Your task to perform on an android device: set the stopwatch Image 0: 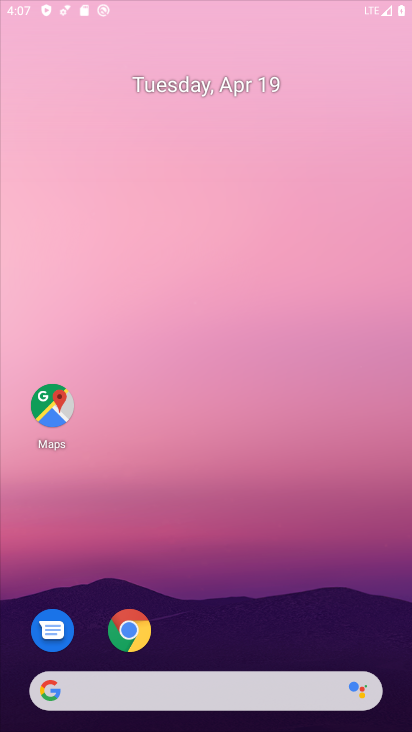
Step 0: click (205, 161)
Your task to perform on an android device: set the stopwatch Image 1: 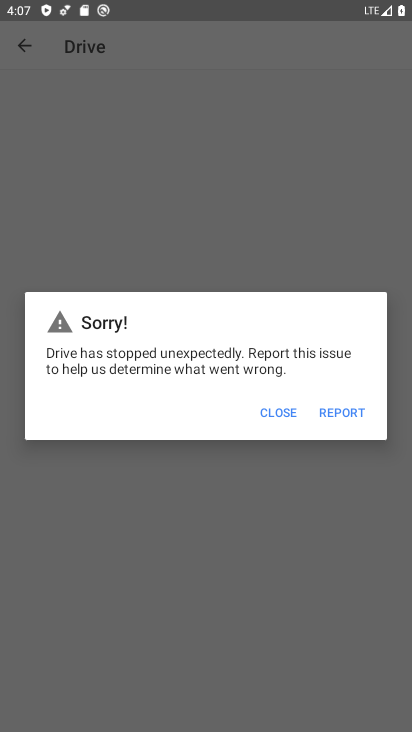
Step 1: press home button
Your task to perform on an android device: set the stopwatch Image 2: 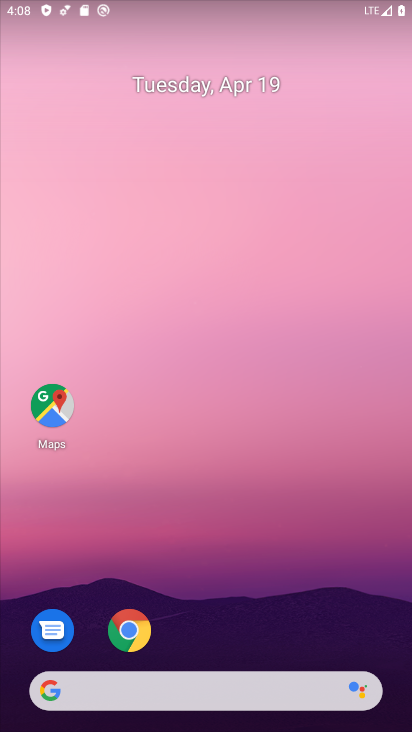
Step 2: drag from (207, 630) to (208, 225)
Your task to perform on an android device: set the stopwatch Image 3: 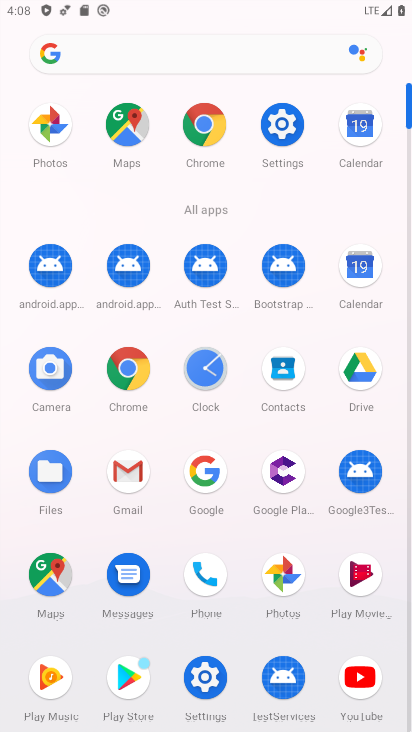
Step 3: click (213, 380)
Your task to perform on an android device: set the stopwatch Image 4: 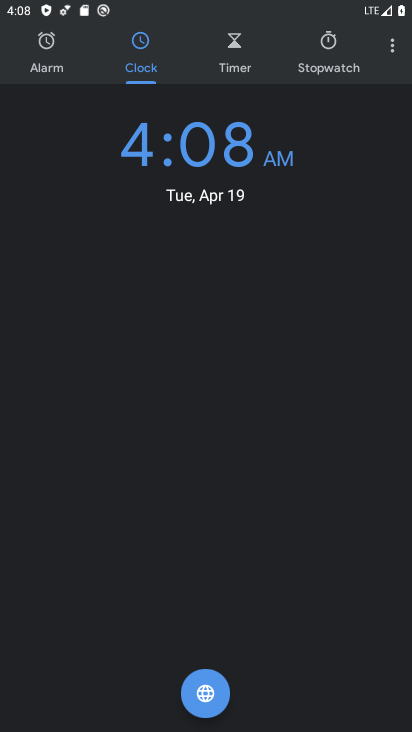
Step 4: click (325, 53)
Your task to perform on an android device: set the stopwatch Image 5: 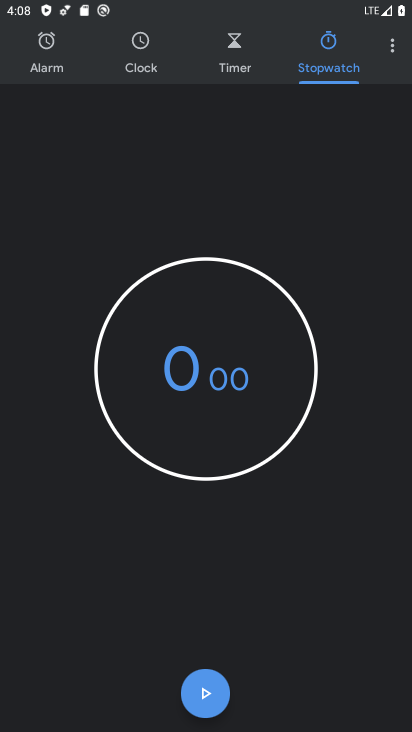
Step 5: click (195, 689)
Your task to perform on an android device: set the stopwatch Image 6: 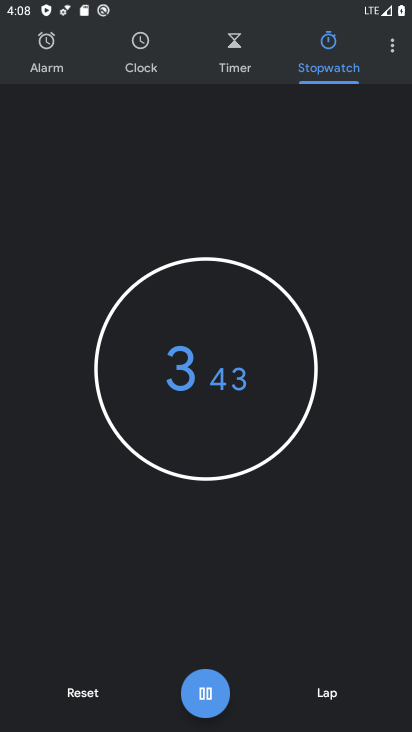
Step 6: task complete